Your task to perform on an android device: Open Maps and search for coffee Image 0: 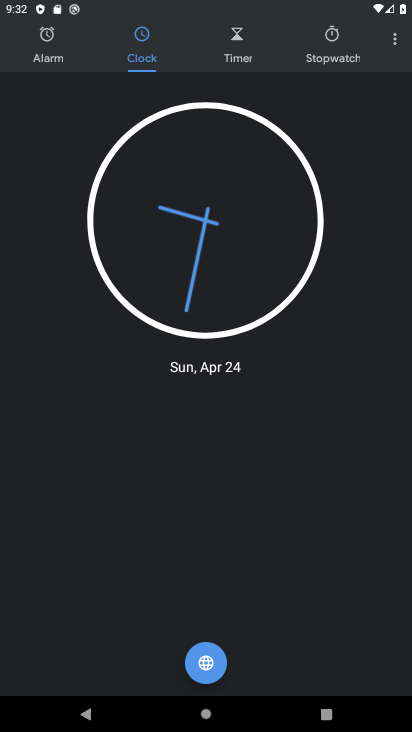
Step 0: press home button
Your task to perform on an android device: Open Maps and search for coffee Image 1: 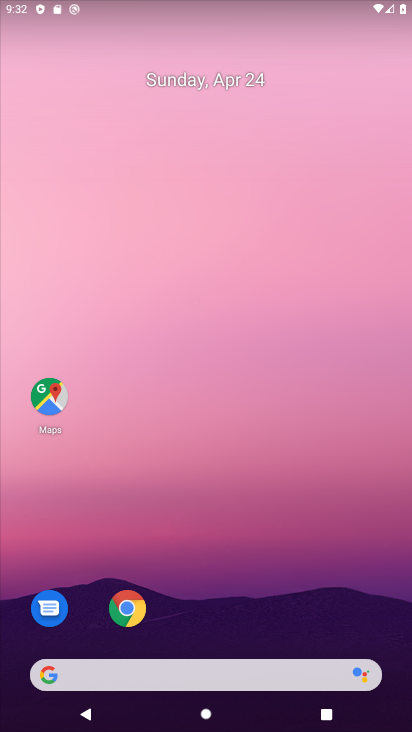
Step 1: drag from (279, 701) to (319, 116)
Your task to perform on an android device: Open Maps and search for coffee Image 2: 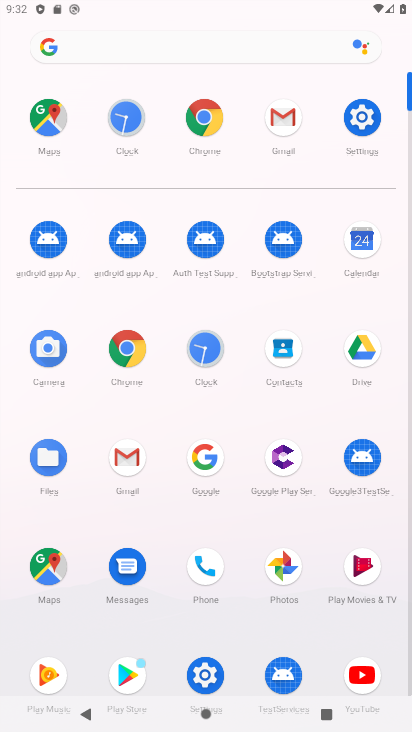
Step 2: click (58, 128)
Your task to perform on an android device: Open Maps and search for coffee Image 3: 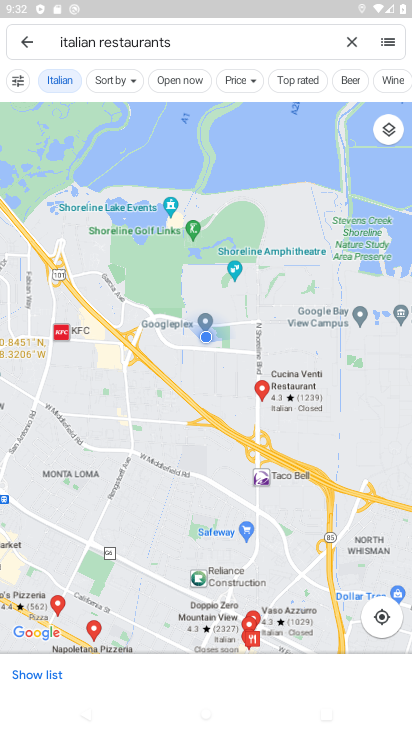
Step 3: click (346, 37)
Your task to perform on an android device: Open Maps and search for coffee Image 4: 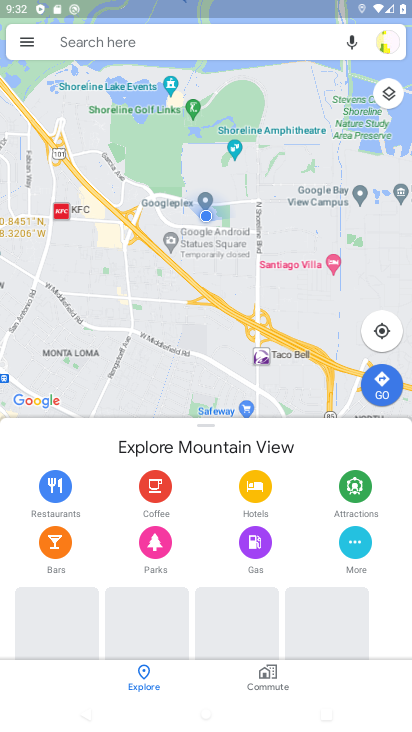
Step 4: click (190, 46)
Your task to perform on an android device: Open Maps and search for coffee Image 5: 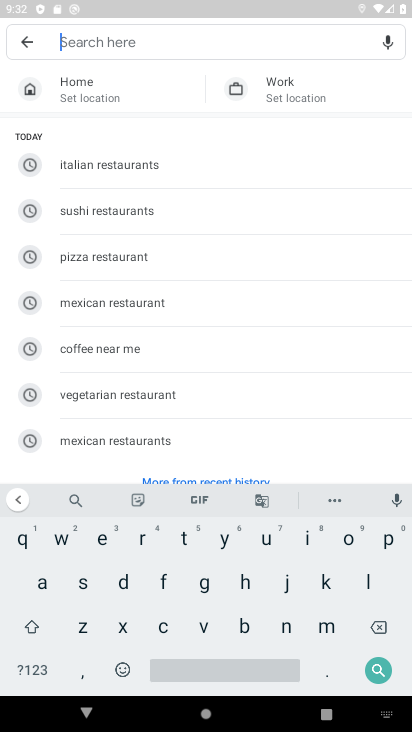
Step 5: click (162, 626)
Your task to perform on an android device: Open Maps and search for coffee Image 6: 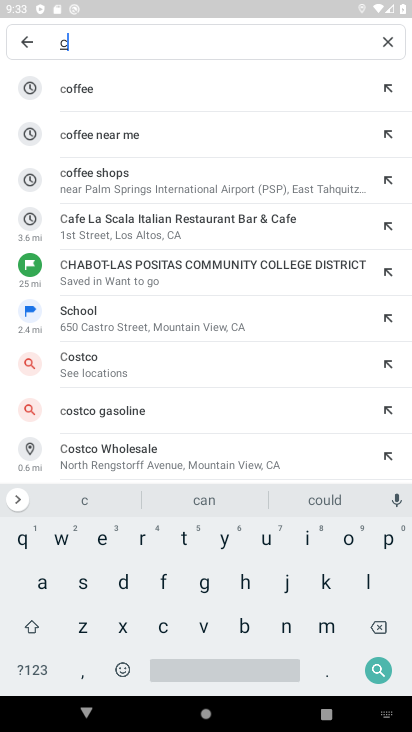
Step 6: click (168, 78)
Your task to perform on an android device: Open Maps and search for coffee Image 7: 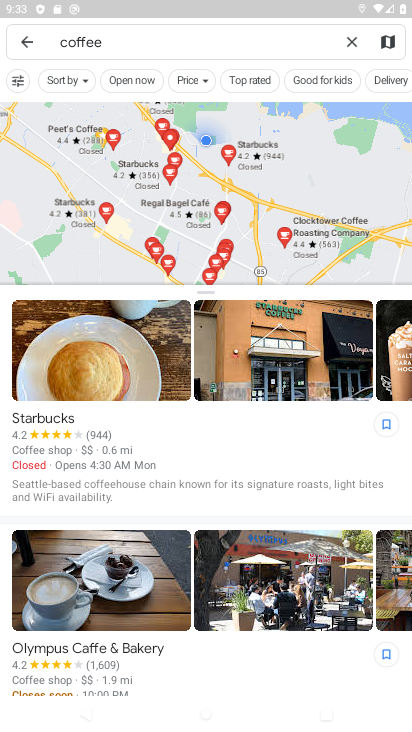
Step 7: click (194, 204)
Your task to perform on an android device: Open Maps and search for coffee Image 8: 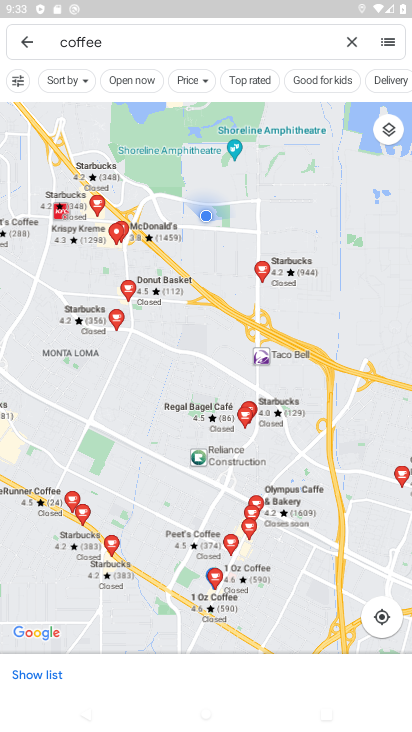
Step 8: task complete